Your task to perform on an android device: Open calendar and show me the first week of next month Image 0: 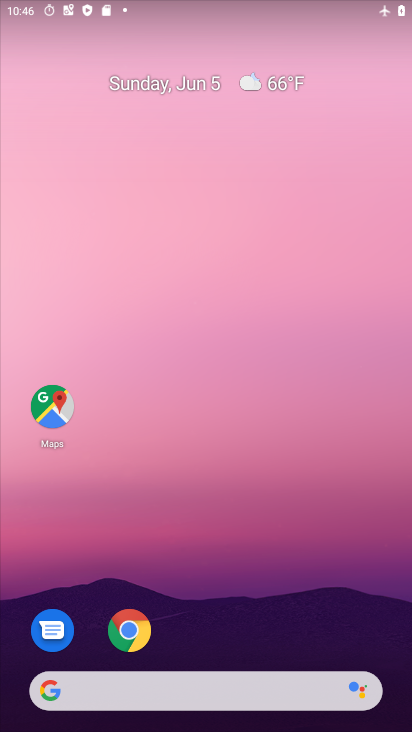
Step 0: drag from (225, 727) to (220, 74)
Your task to perform on an android device: Open calendar and show me the first week of next month Image 1: 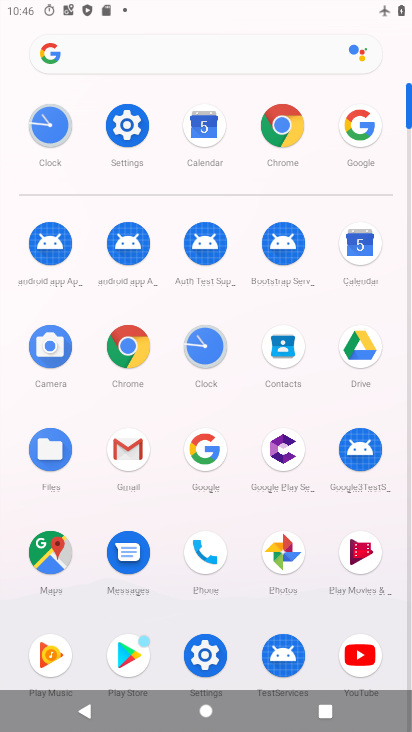
Step 1: click (358, 241)
Your task to perform on an android device: Open calendar and show me the first week of next month Image 2: 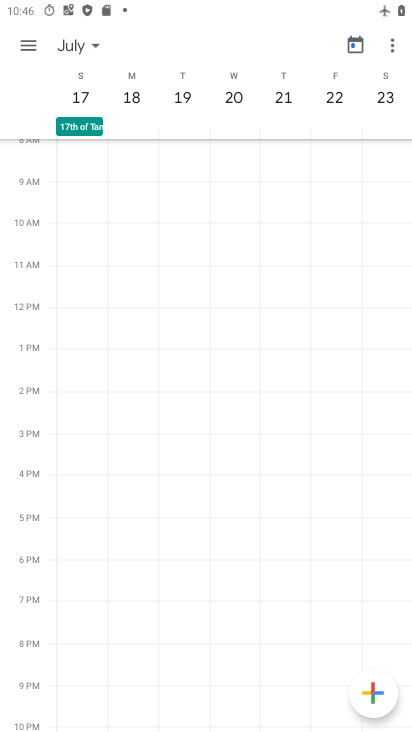
Step 2: click (95, 40)
Your task to perform on an android device: Open calendar and show me the first week of next month Image 3: 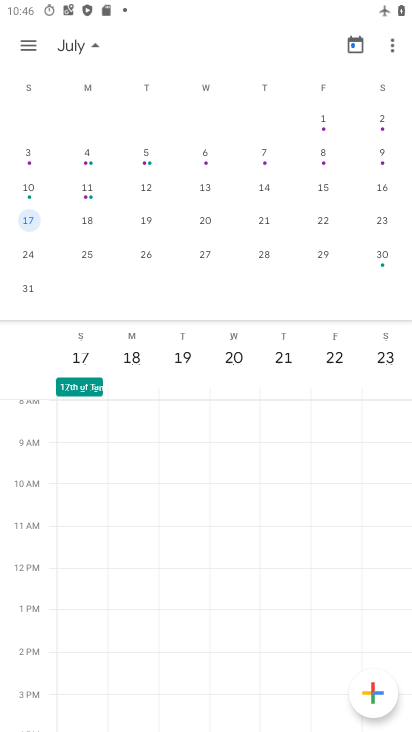
Step 3: click (89, 151)
Your task to perform on an android device: Open calendar and show me the first week of next month Image 4: 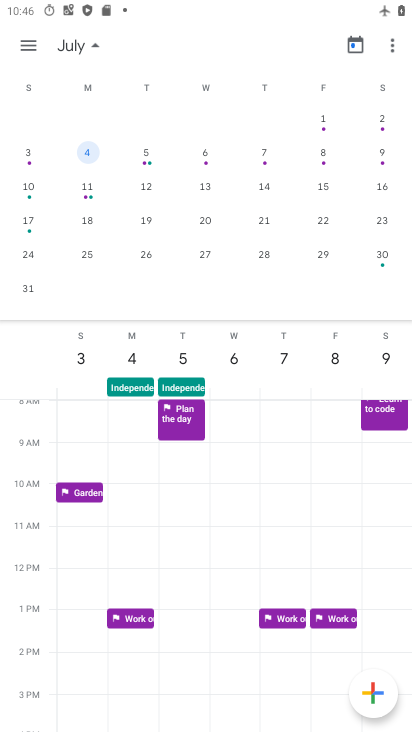
Step 4: click (22, 41)
Your task to perform on an android device: Open calendar and show me the first week of next month Image 5: 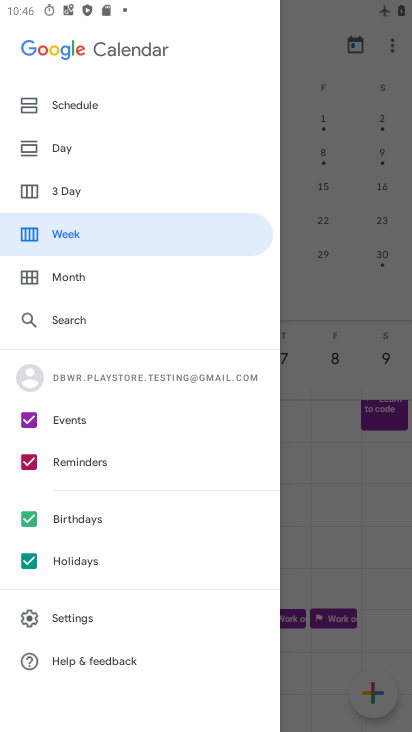
Step 5: click (73, 236)
Your task to perform on an android device: Open calendar and show me the first week of next month Image 6: 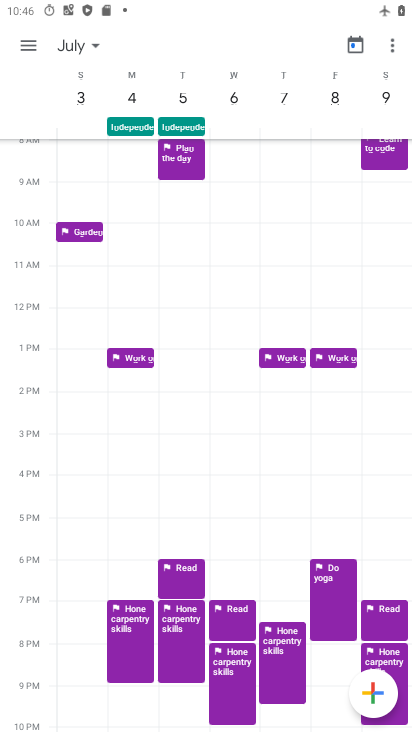
Step 6: task complete